Your task to perform on an android device: Open Amazon Image 0: 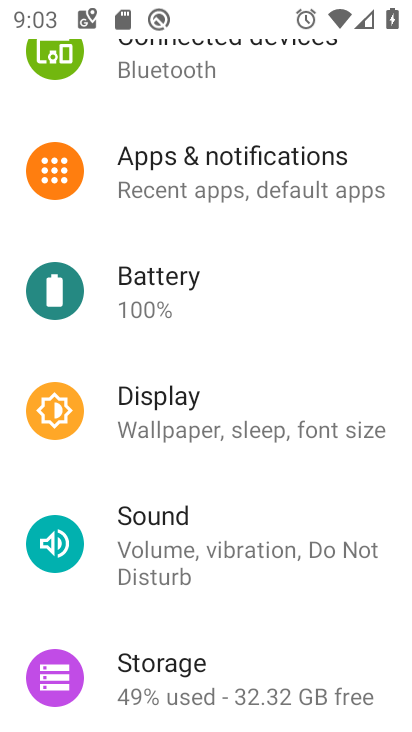
Step 0: press home button
Your task to perform on an android device: Open Amazon Image 1: 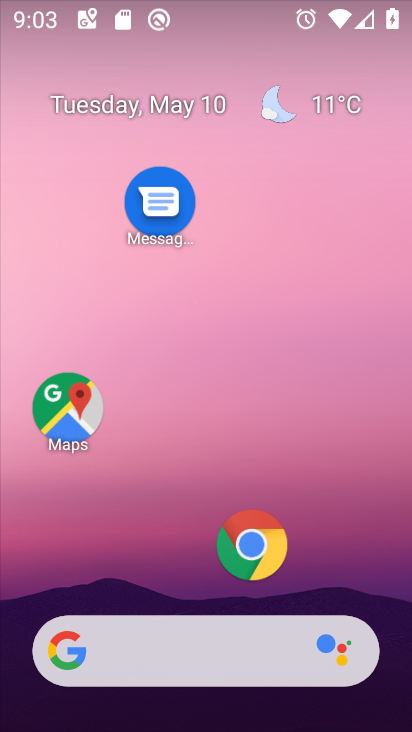
Step 1: click (251, 534)
Your task to perform on an android device: Open Amazon Image 2: 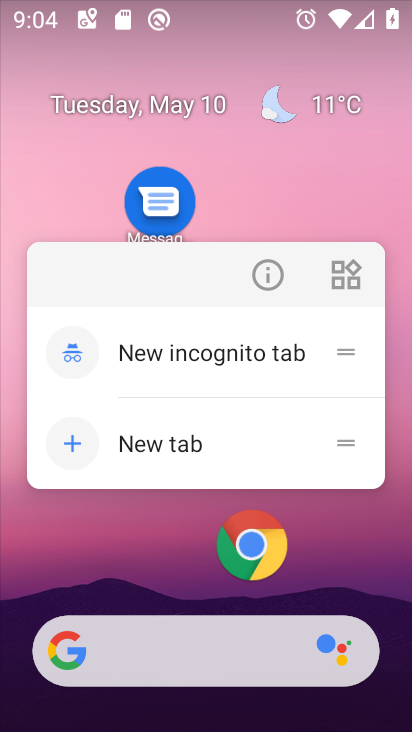
Step 2: click (248, 546)
Your task to perform on an android device: Open Amazon Image 3: 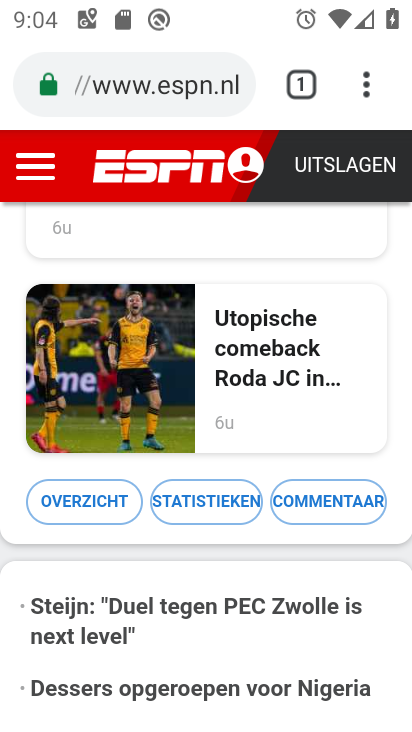
Step 3: click (298, 87)
Your task to perform on an android device: Open Amazon Image 4: 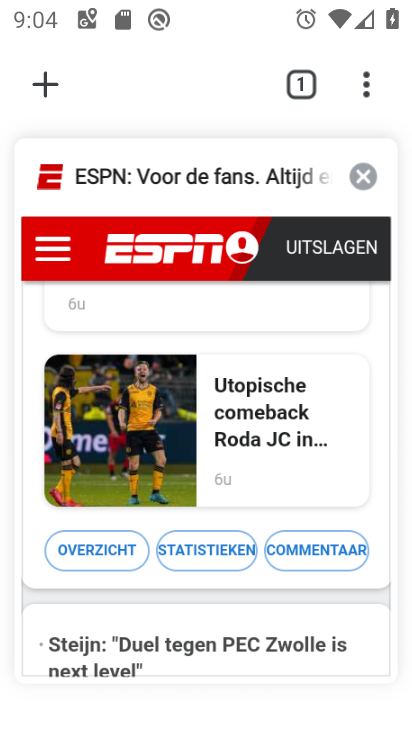
Step 4: click (358, 171)
Your task to perform on an android device: Open Amazon Image 5: 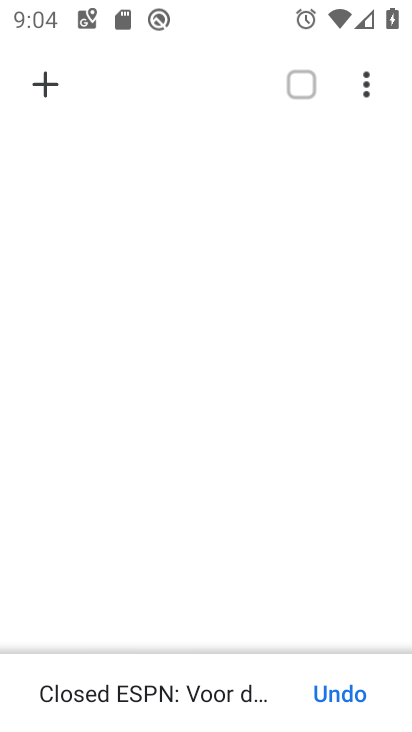
Step 5: click (50, 84)
Your task to perform on an android device: Open Amazon Image 6: 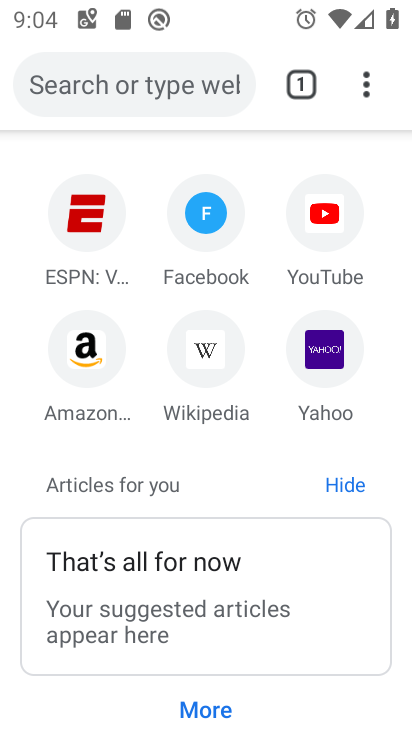
Step 6: click (87, 346)
Your task to perform on an android device: Open Amazon Image 7: 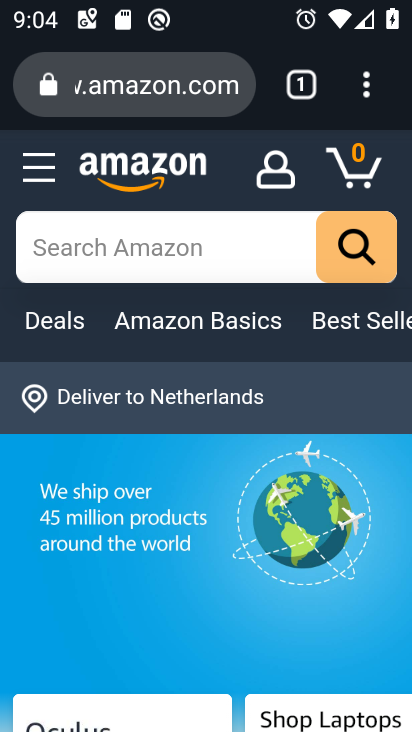
Step 7: task complete